Your task to perform on an android device: install app "Microsoft Outlook" Image 0: 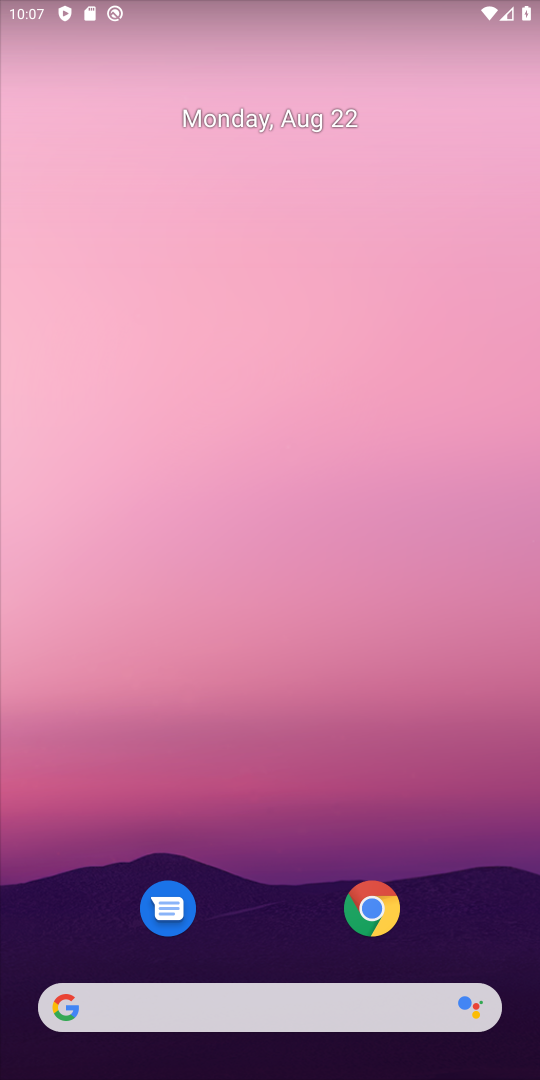
Step 0: drag from (264, 976) to (246, 220)
Your task to perform on an android device: install app "Microsoft Outlook" Image 1: 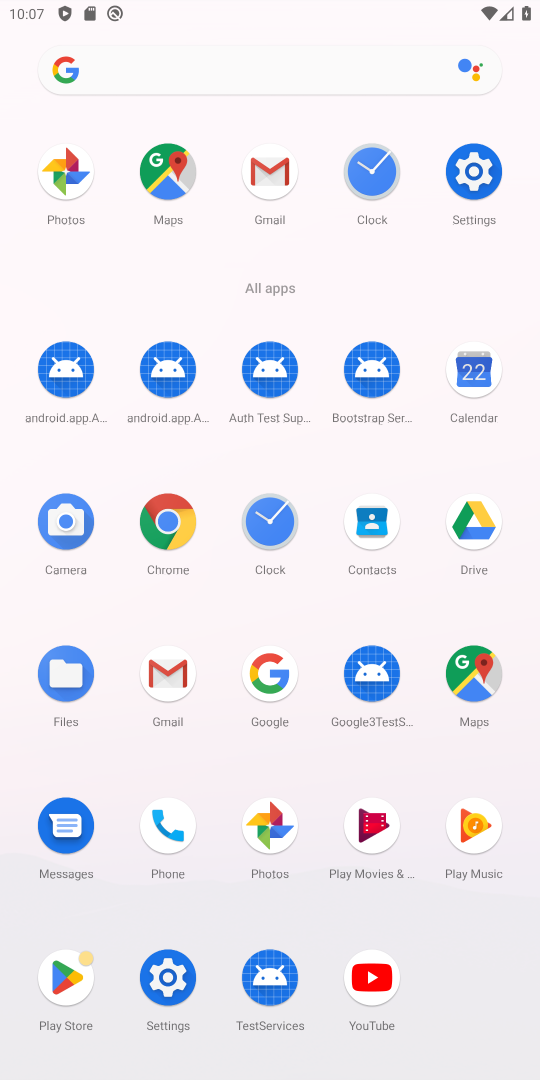
Step 1: click (61, 1034)
Your task to perform on an android device: install app "Microsoft Outlook" Image 2: 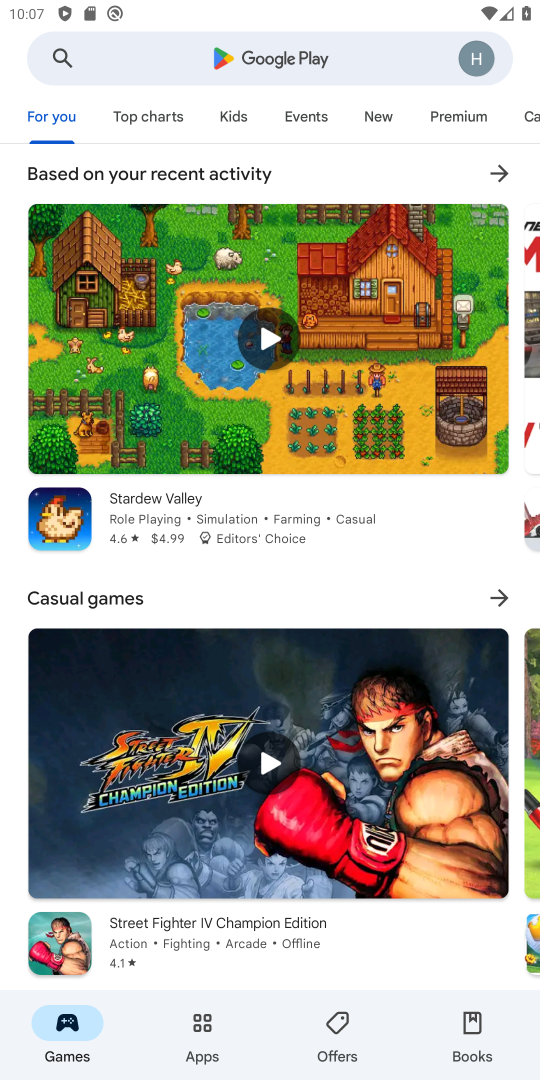
Step 2: click (364, 64)
Your task to perform on an android device: install app "Microsoft Outlook" Image 3: 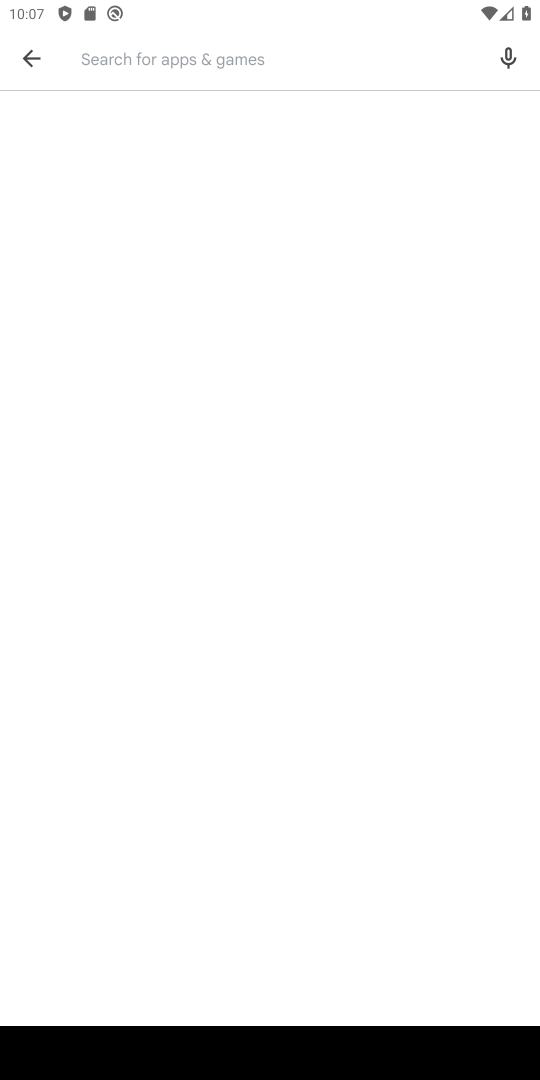
Step 3: type "microsoft outlook"
Your task to perform on an android device: install app "Microsoft Outlook" Image 4: 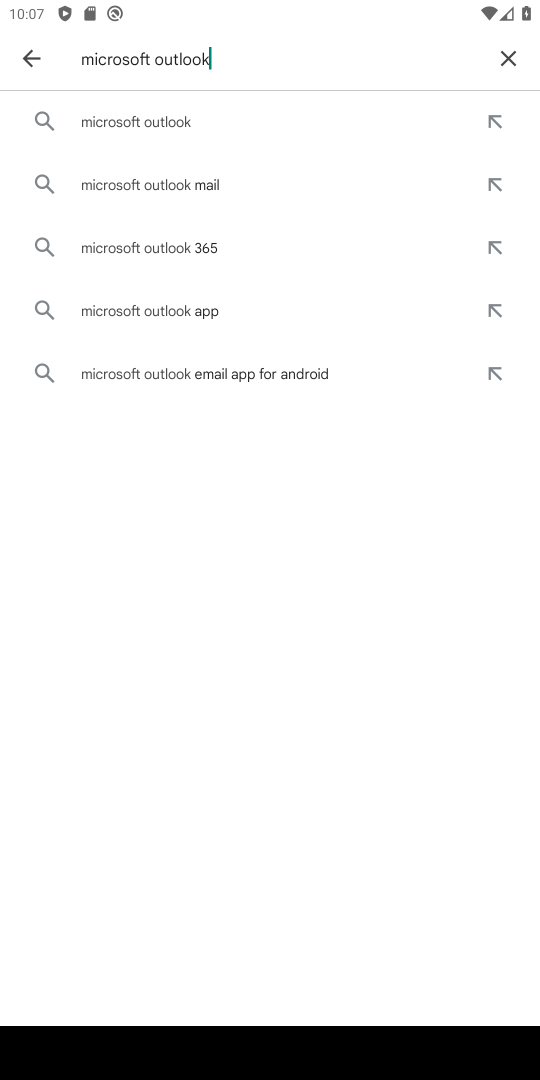
Step 4: click (233, 143)
Your task to perform on an android device: install app "Microsoft Outlook" Image 5: 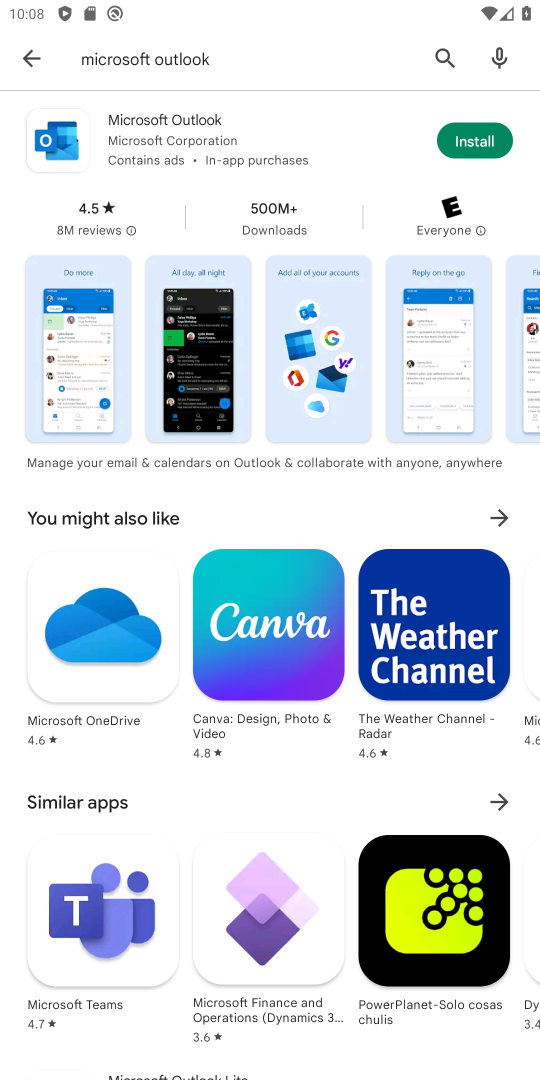
Step 5: click (445, 150)
Your task to perform on an android device: install app "Microsoft Outlook" Image 6: 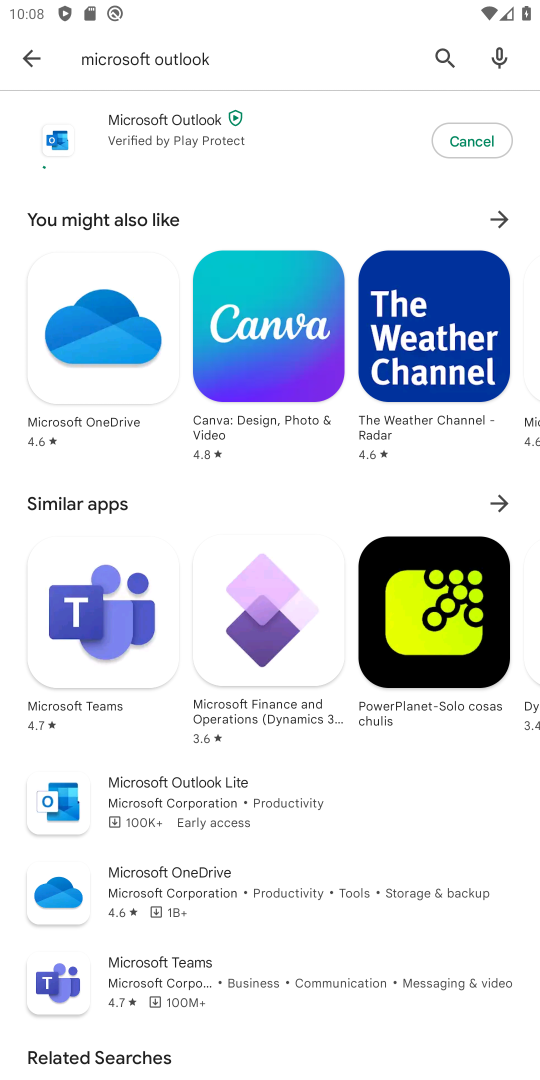
Step 6: task complete